Your task to perform on an android device: When is my next appointment? Image 0: 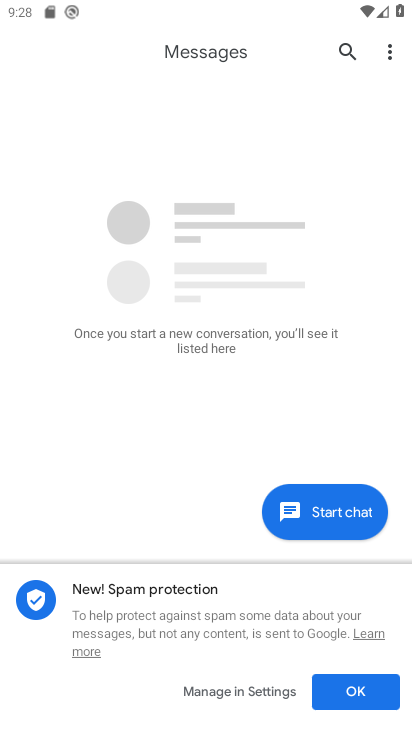
Step 0: press home button
Your task to perform on an android device: When is my next appointment? Image 1: 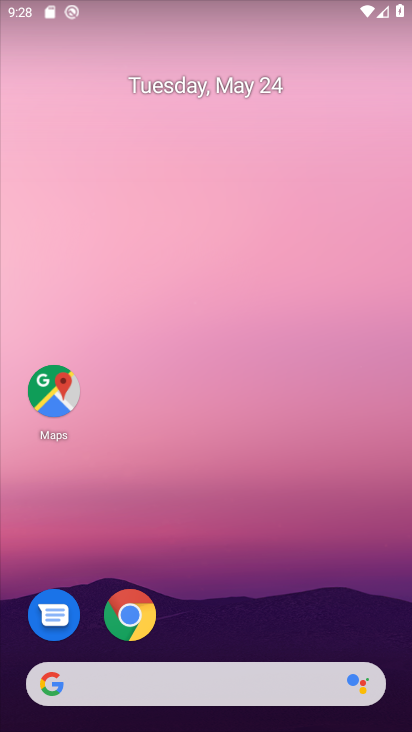
Step 1: drag from (386, 632) to (366, 212)
Your task to perform on an android device: When is my next appointment? Image 2: 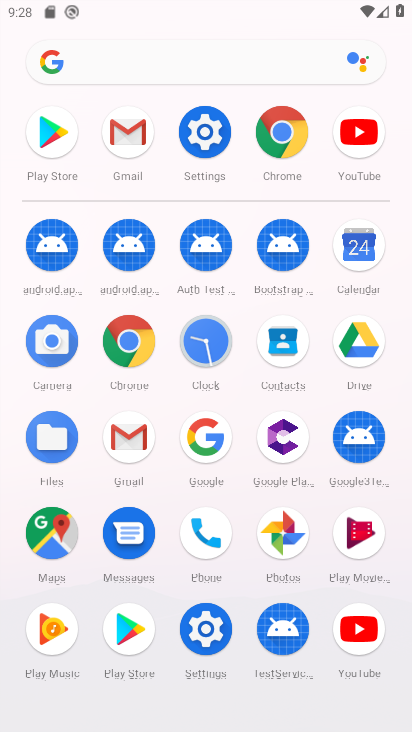
Step 2: click (355, 261)
Your task to perform on an android device: When is my next appointment? Image 3: 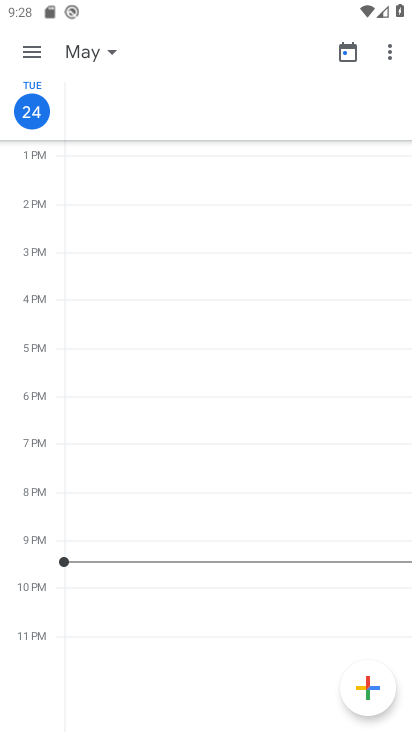
Step 3: click (121, 50)
Your task to perform on an android device: When is my next appointment? Image 4: 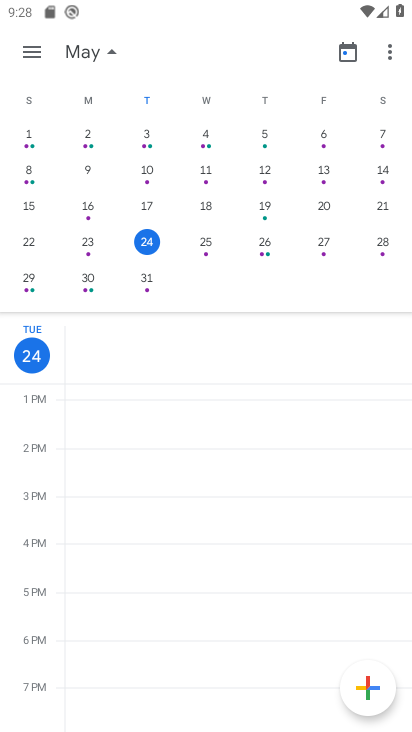
Step 4: click (37, 61)
Your task to perform on an android device: When is my next appointment? Image 5: 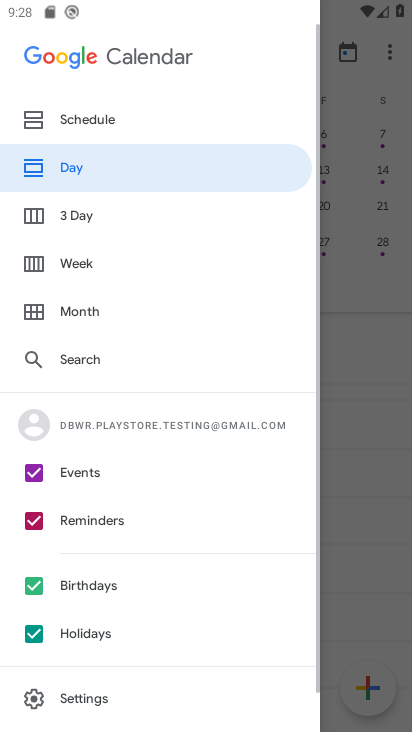
Step 5: click (78, 117)
Your task to perform on an android device: When is my next appointment? Image 6: 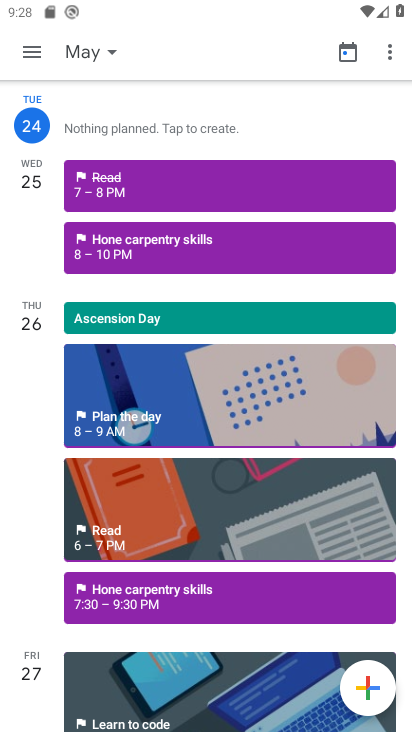
Step 6: click (164, 243)
Your task to perform on an android device: When is my next appointment? Image 7: 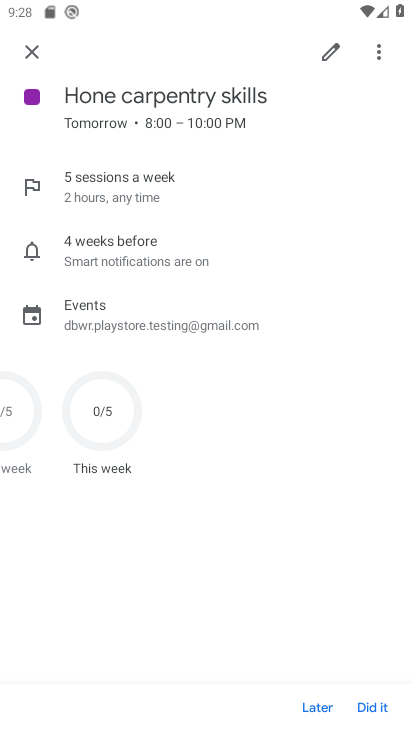
Step 7: task complete